Your task to perform on an android device: open sync settings in chrome Image 0: 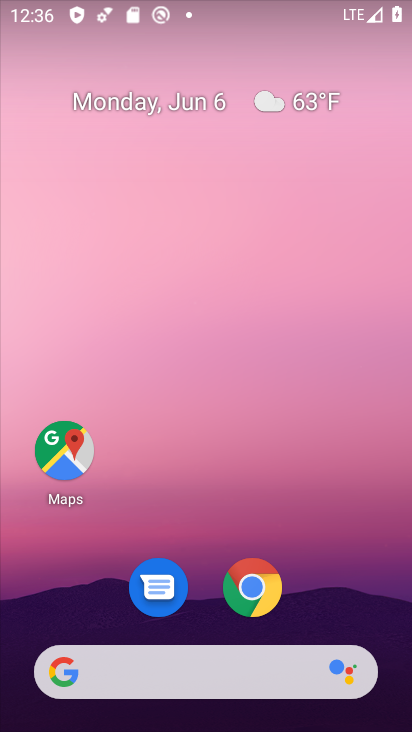
Step 0: click (264, 580)
Your task to perform on an android device: open sync settings in chrome Image 1: 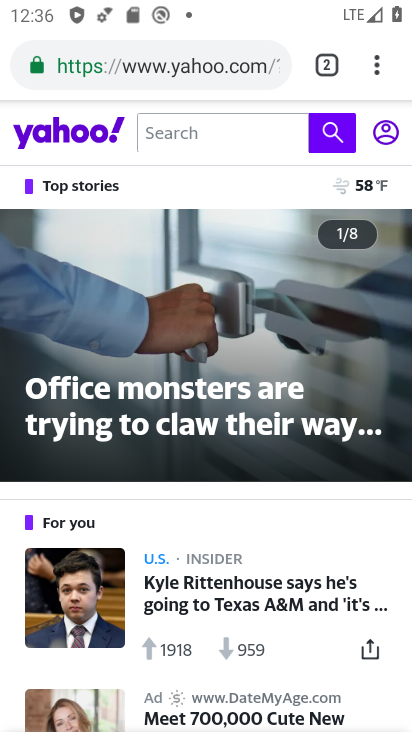
Step 1: click (384, 73)
Your task to perform on an android device: open sync settings in chrome Image 2: 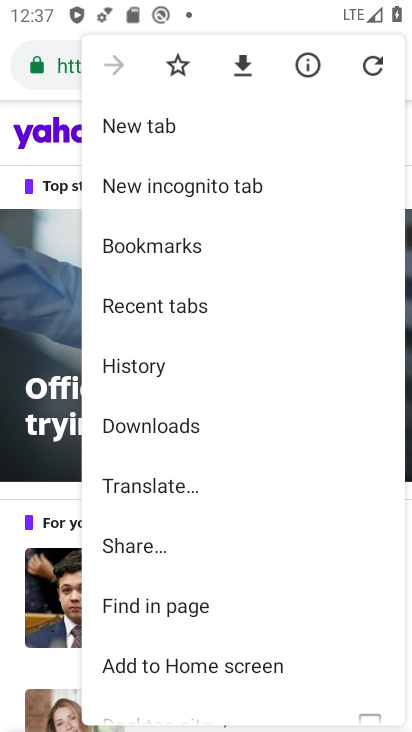
Step 2: drag from (245, 694) to (220, 242)
Your task to perform on an android device: open sync settings in chrome Image 3: 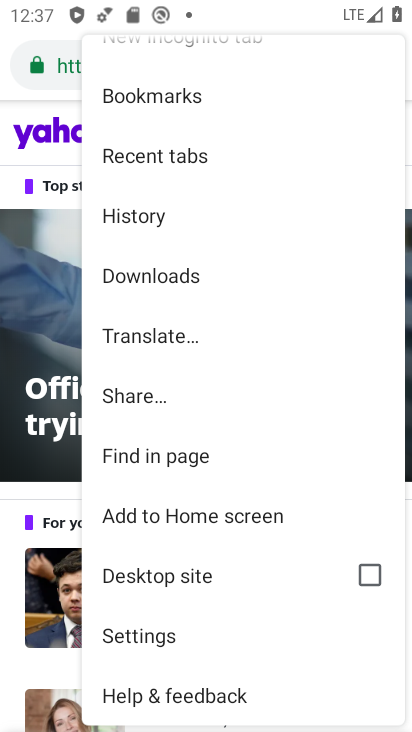
Step 3: click (199, 628)
Your task to perform on an android device: open sync settings in chrome Image 4: 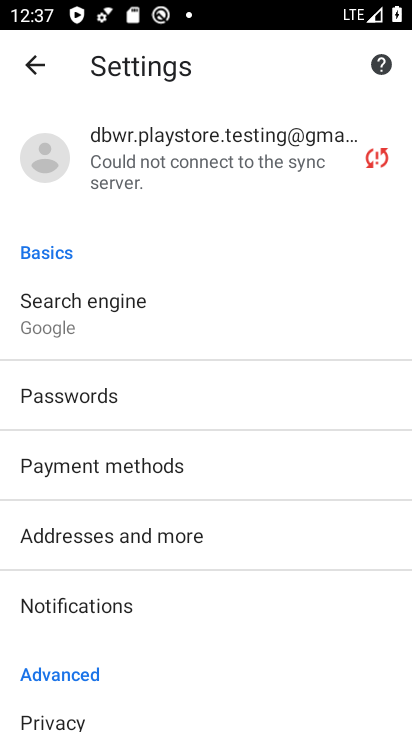
Step 4: click (226, 158)
Your task to perform on an android device: open sync settings in chrome Image 5: 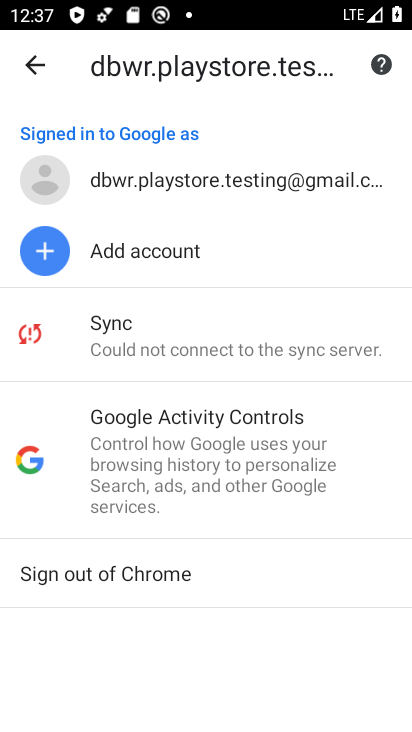
Step 5: click (191, 351)
Your task to perform on an android device: open sync settings in chrome Image 6: 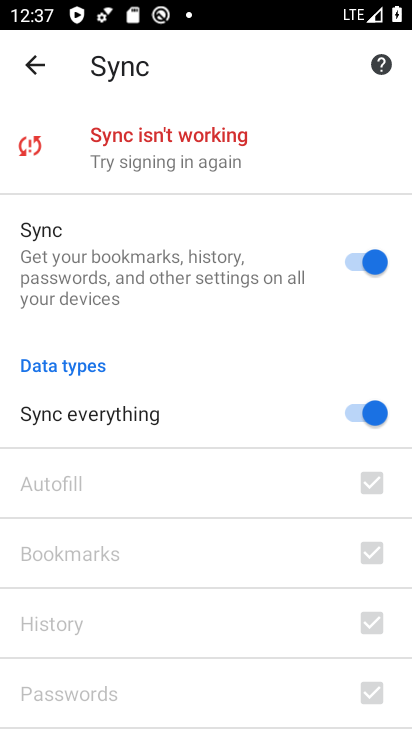
Step 6: task complete